Your task to perform on an android device: Is it going to rain this weekend? Image 0: 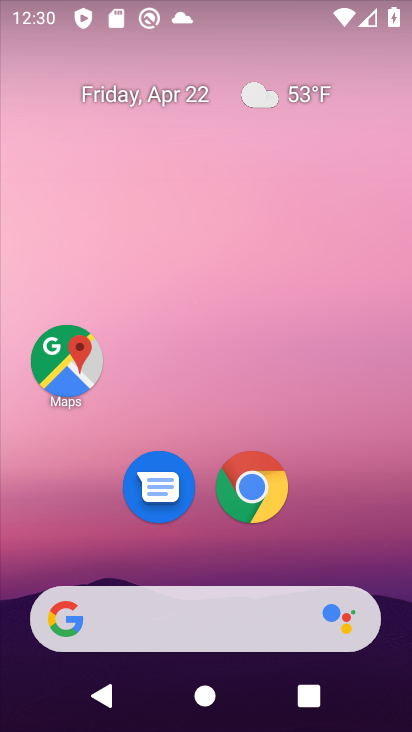
Step 0: click (318, 106)
Your task to perform on an android device: Is it going to rain this weekend? Image 1: 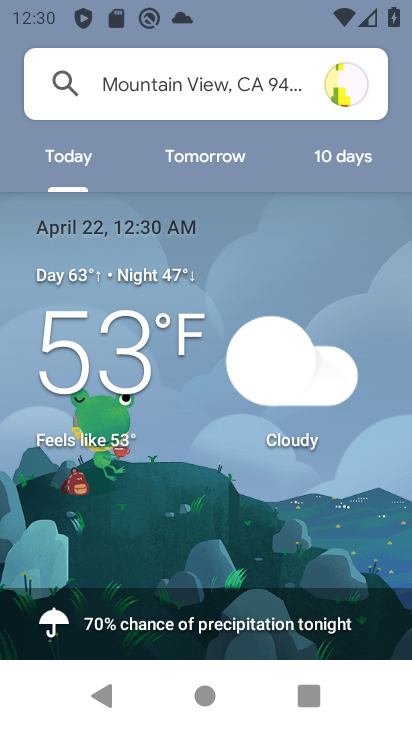
Step 1: click (324, 159)
Your task to perform on an android device: Is it going to rain this weekend? Image 2: 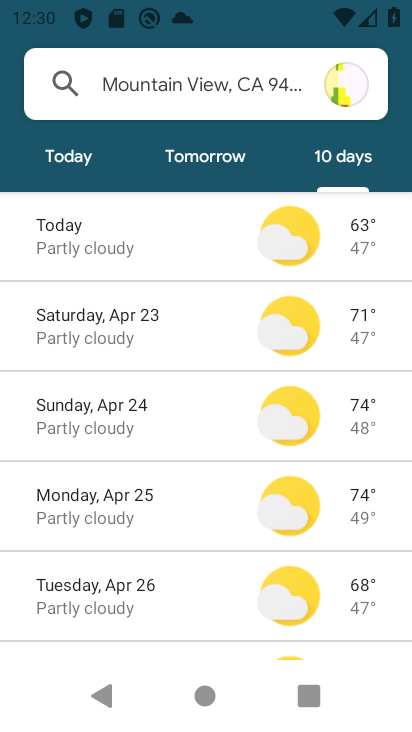
Step 2: click (158, 347)
Your task to perform on an android device: Is it going to rain this weekend? Image 3: 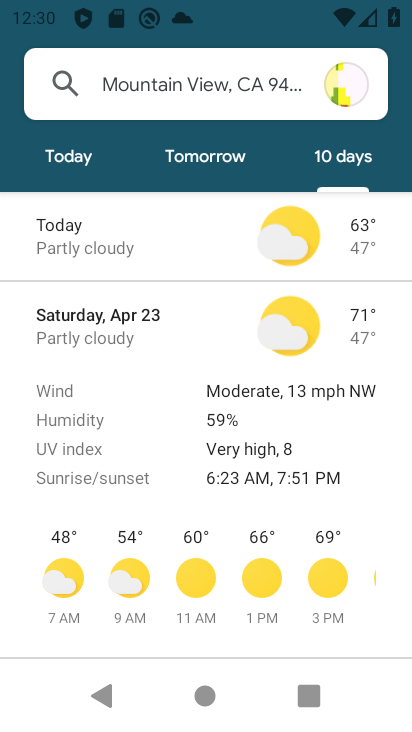
Step 3: task complete